Your task to perform on an android device: find which apps use the phone's location Image 0: 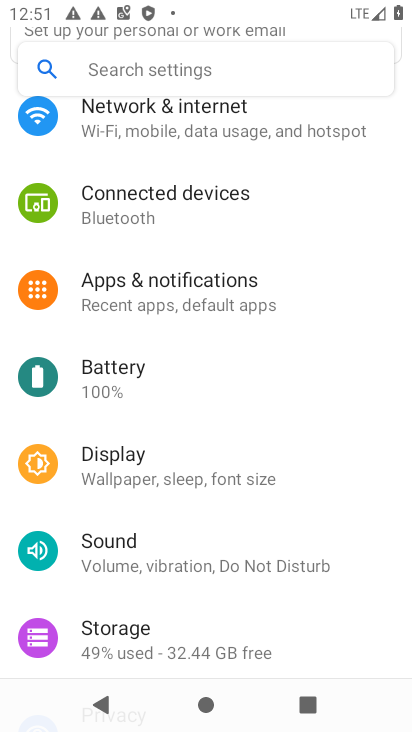
Step 0: drag from (371, 587) to (342, 195)
Your task to perform on an android device: find which apps use the phone's location Image 1: 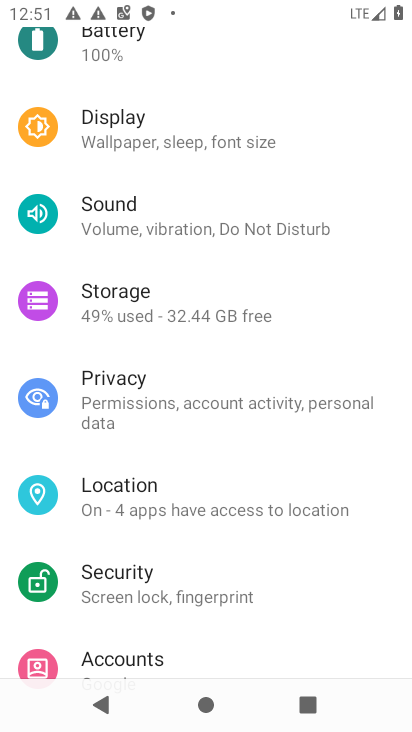
Step 1: click (121, 488)
Your task to perform on an android device: find which apps use the phone's location Image 2: 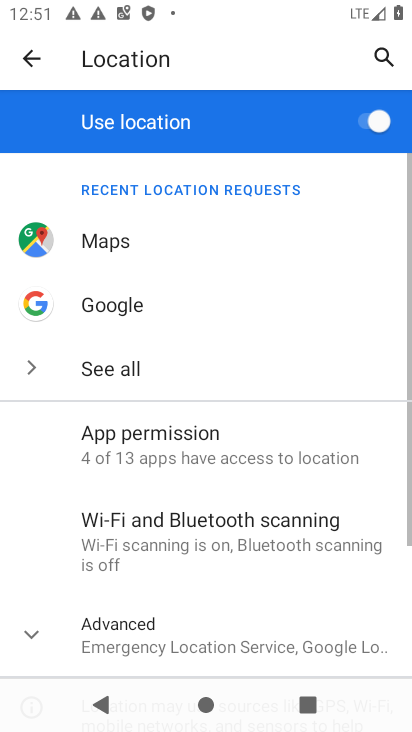
Step 2: click (145, 425)
Your task to perform on an android device: find which apps use the phone's location Image 3: 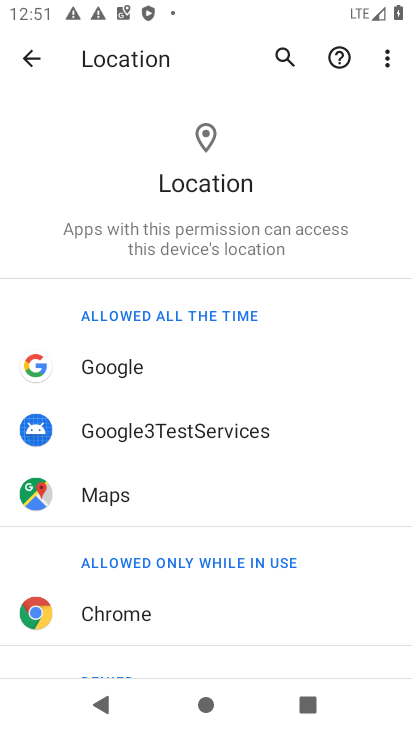
Step 3: task complete